Your task to perform on an android device: Go to settings Image 0: 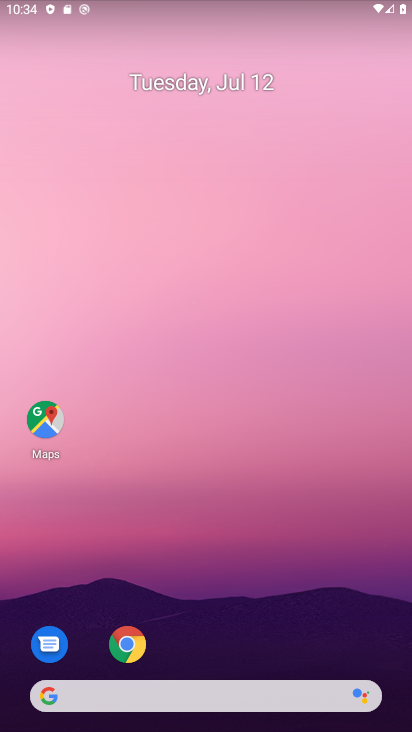
Step 0: press home button
Your task to perform on an android device: Go to settings Image 1: 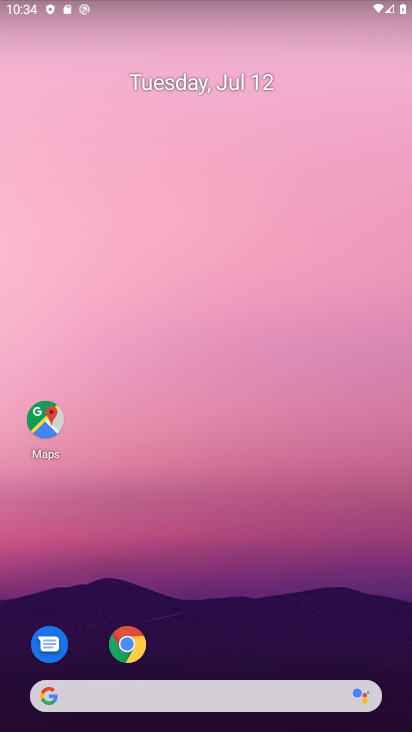
Step 1: click (268, 63)
Your task to perform on an android device: Go to settings Image 2: 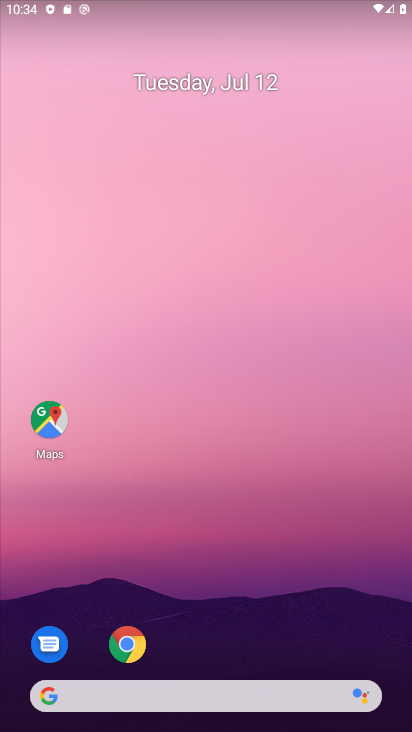
Step 2: drag from (222, 664) to (219, 0)
Your task to perform on an android device: Go to settings Image 3: 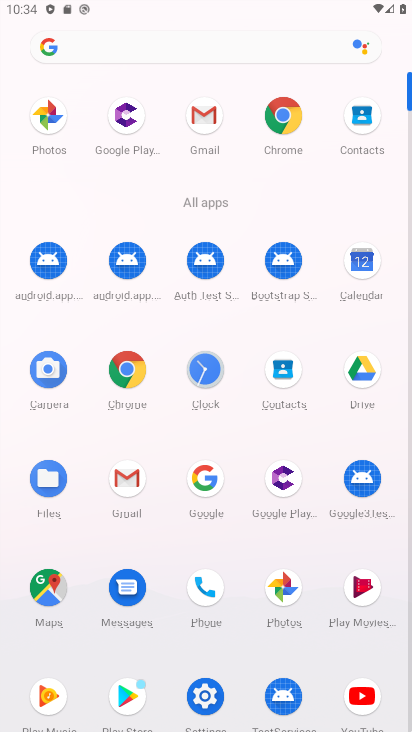
Step 3: click (206, 690)
Your task to perform on an android device: Go to settings Image 4: 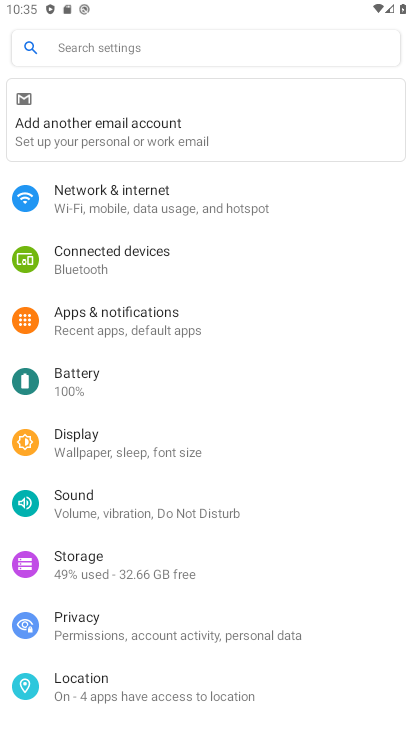
Step 4: task complete